Your task to perform on an android device: Search for Mexican restaurants on Maps Image 0: 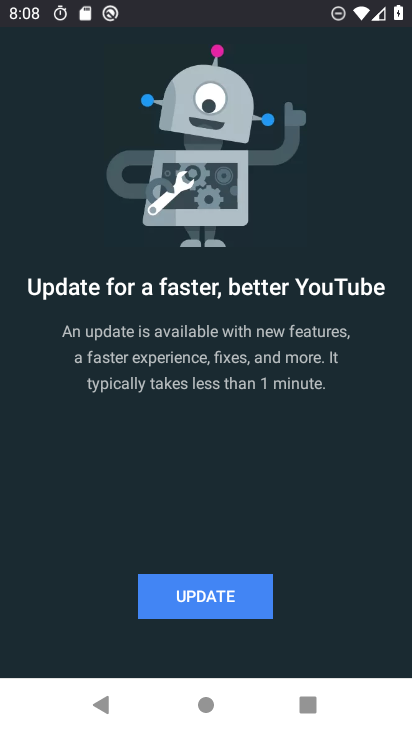
Step 0: press home button
Your task to perform on an android device: Search for Mexican restaurants on Maps Image 1: 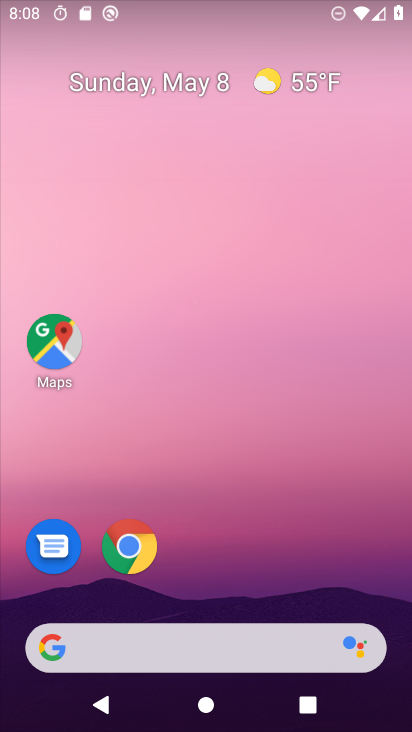
Step 1: click (48, 347)
Your task to perform on an android device: Search for Mexican restaurants on Maps Image 2: 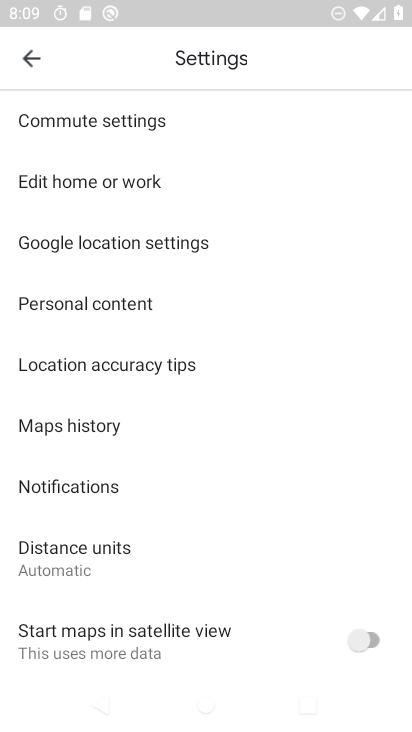
Step 2: click (29, 53)
Your task to perform on an android device: Search for Mexican restaurants on Maps Image 3: 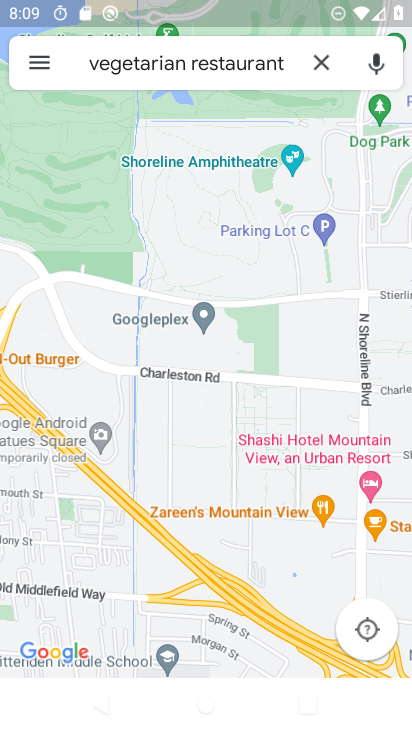
Step 3: click (325, 59)
Your task to perform on an android device: Search for Mexican restaurants on Maps Image 4: 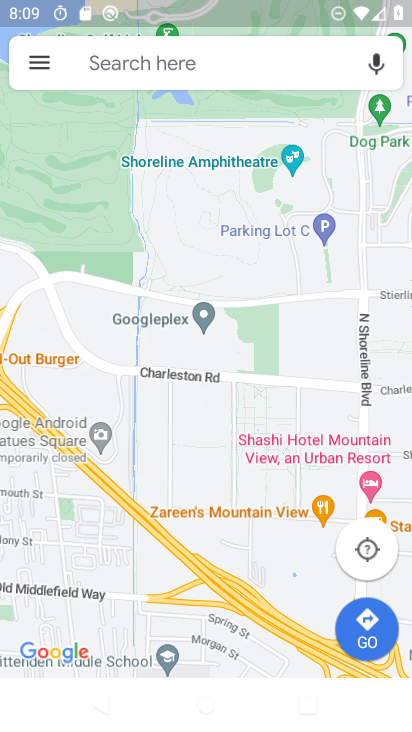
Step 4: click (298, 59)
Your task to perform on an android device: Search for Mexican restaurants on Maps Image 5: 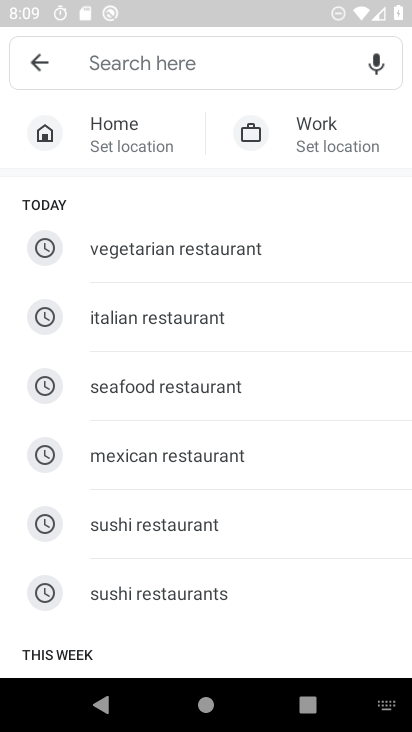
Step 5: click (221, 467)
Your task to perform on an android device: Search for Mexican restaurants on Maps Image 6: 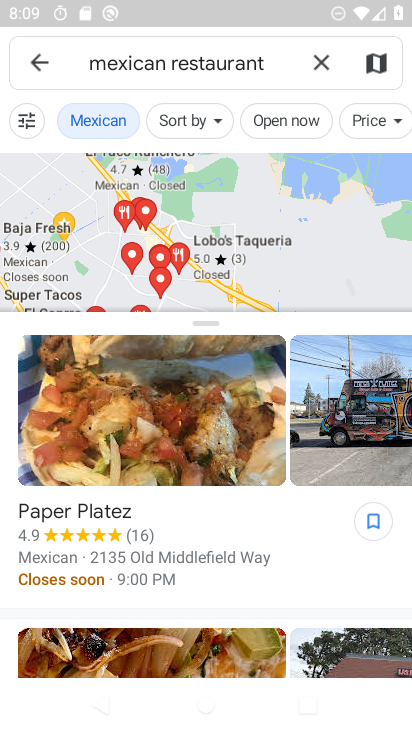
Step 6: task complete